Your task to perform on an android device: turn on priority inbox in the gmail app Image 0: 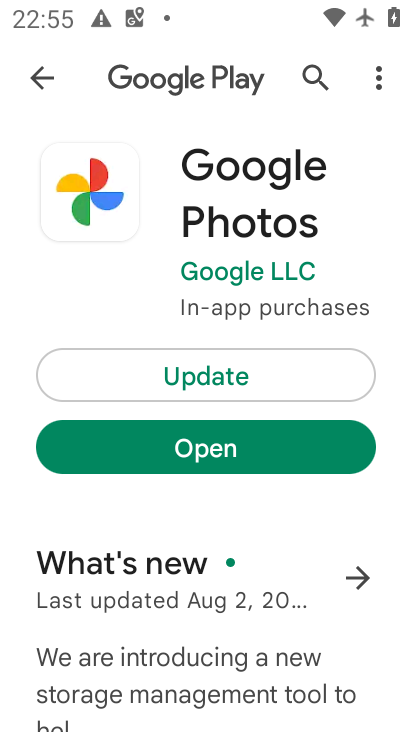
Step 0: press home button
Your task to perform on an android device: turn on priority inbox in the gmail app Image 1: 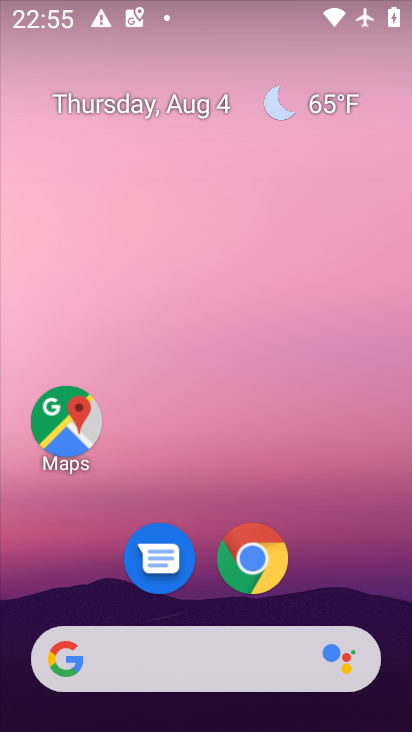
Step 1: drag from (347, 579) to (268, 112)
Your task to perform on an android device: turn on priority inbox in the gmail app Image 2: 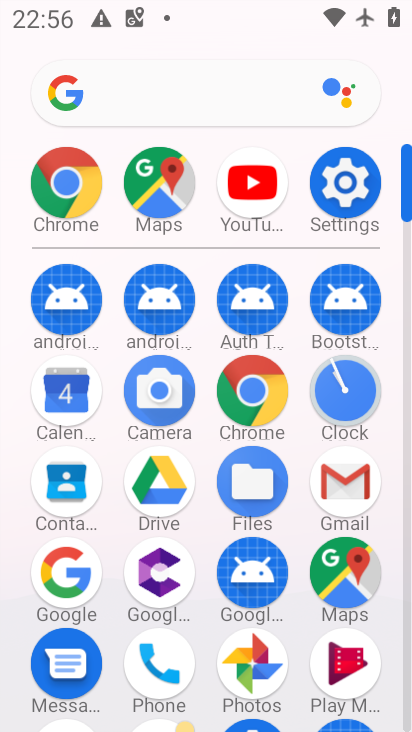
Step 2: click (340, 471)
Your task to perform on an android device: turn on priority inbox in the gmail app Image 3: 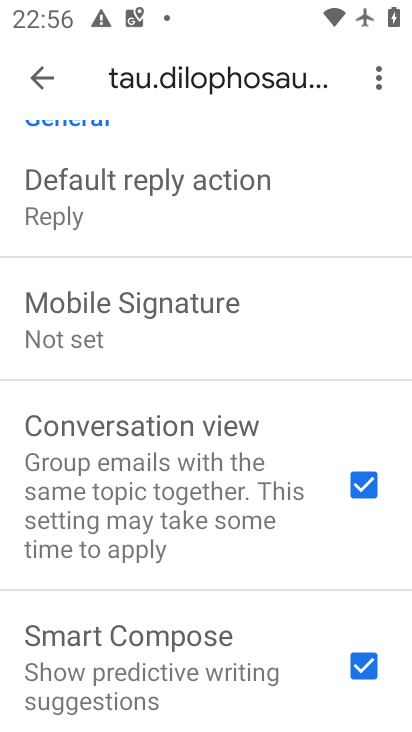
Step 3: click (39, 73)
Your task to perform on an android device: turn on priority inbox in the gmail app Image 4: 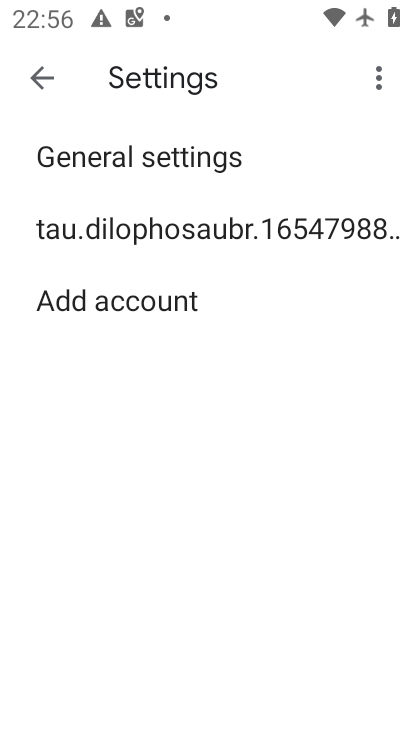
Step 4: click (39, 73)
Your task to perform on an android device: turn on priority inbox in the gmail app Image 5: 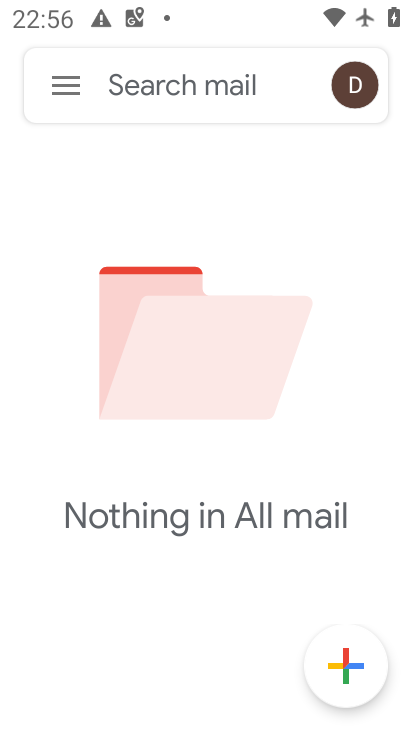
Step 5: click (40, 73)
Your task to perform on an android device: turn on priority inbox in the gmail app Image 6: 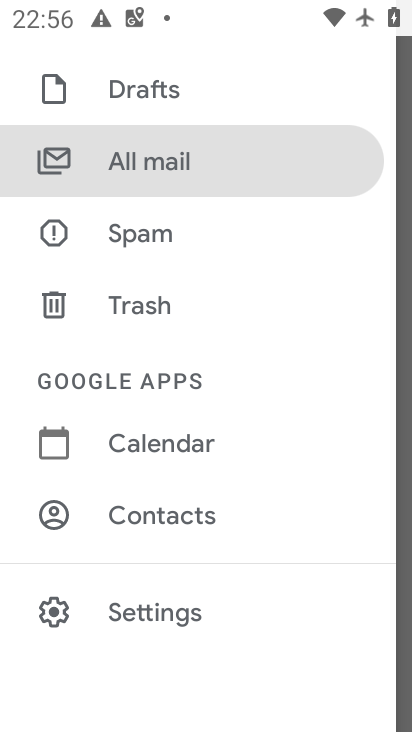
Step 6: click (150, 613)
Your task to perform on an android device: turn on priority inbox in the gmail app Image 7: 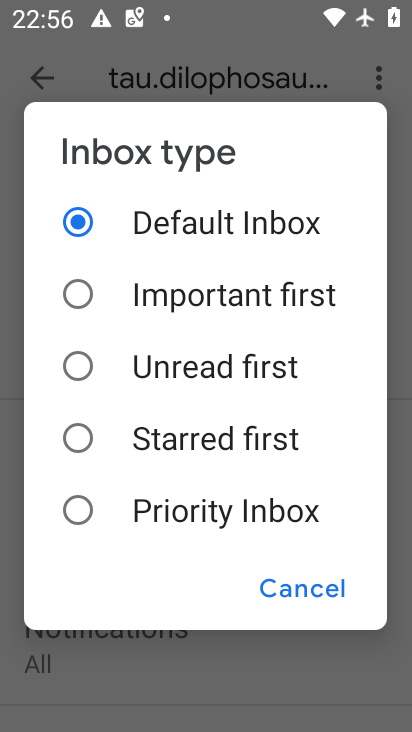
Step 7: task complete